Your task to perform on an android device: open wifi settings Image 0: 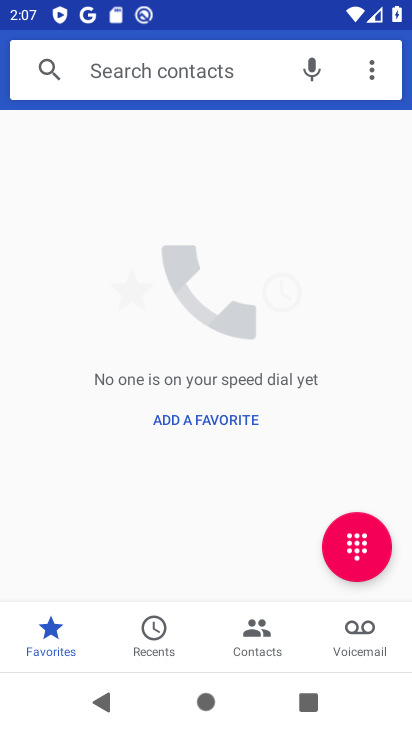
Step 0: drag from (239, 583) to (138, 170)
Your task to perform on an android device: open wifi settings Image 1: 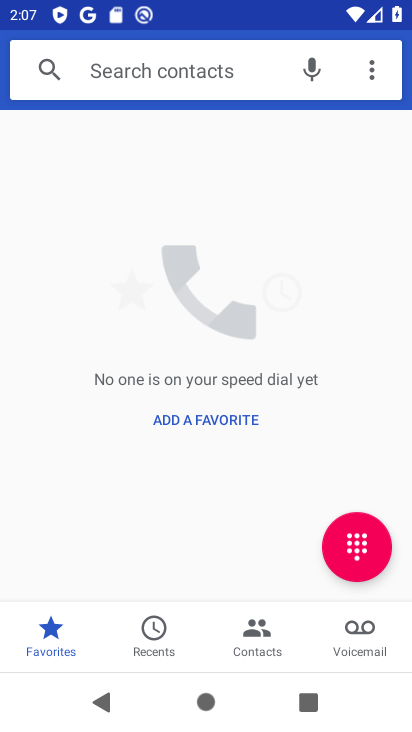
Step 1: press back button
Your task to perform on an android device: open wifi settings Image 2: 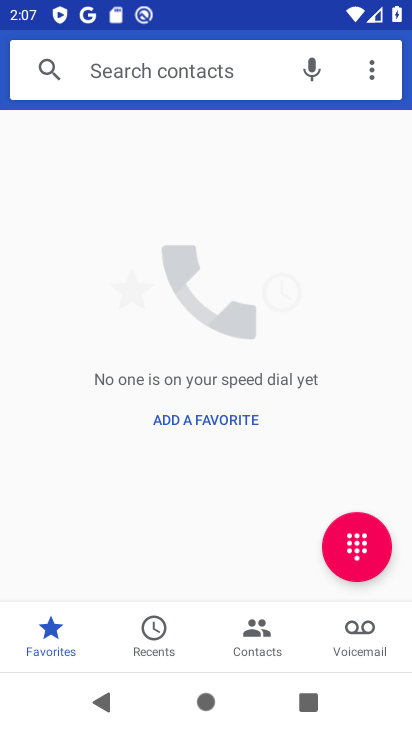
Step 2: press back button
Your task to perform on an android device: open wifi settings Image 3: 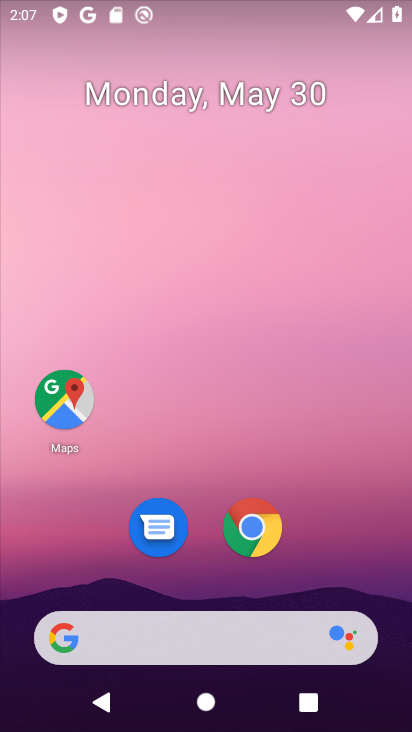
Step 3: drag from (287, 664) to (259, 70)
Your task to perform on an android device: open wifi settings Image 4: 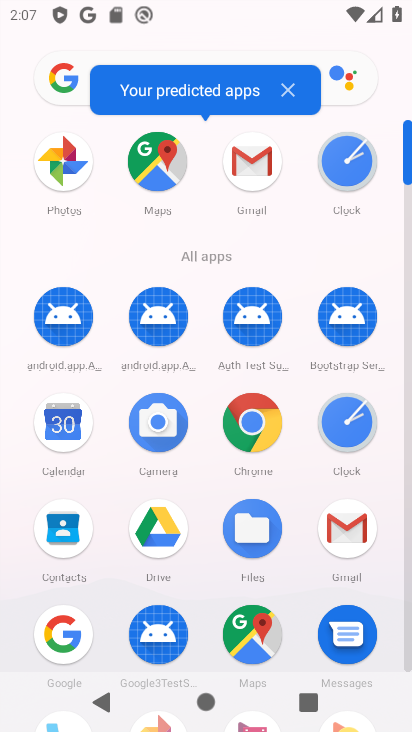
Step 4: drag from (331, 534) to (282, 60)
Your task to perform on an android device: open wifi settings Image 5: 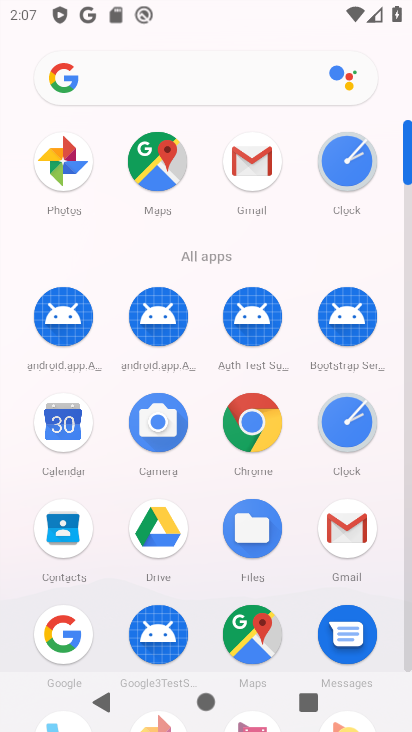
Step 5: drag from (287, 442) to (248, 144)
Your task to perform on an android device: open wifi settings Image 6: 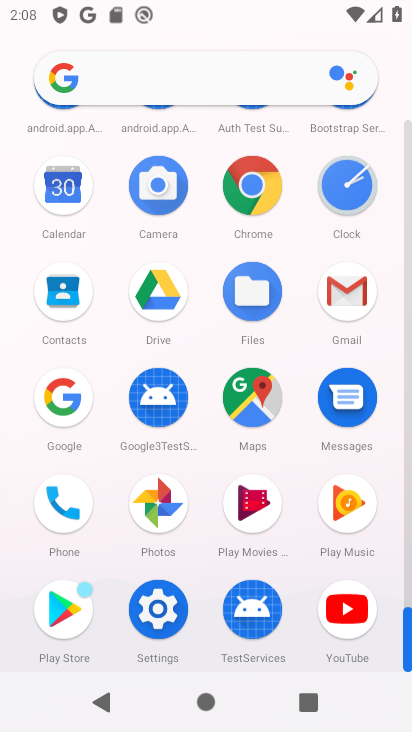
Step 6: drag from (266, 464) to (244, 166)
Your task to perform on an android device: open wifi settings Image 7: 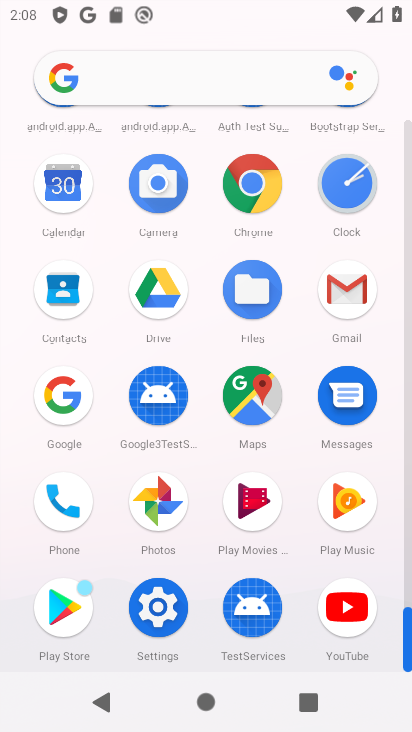
Step 7: drag from (253, 435) to (241, 212)
Your task to perform on an android device: open wifi settings Image 8: 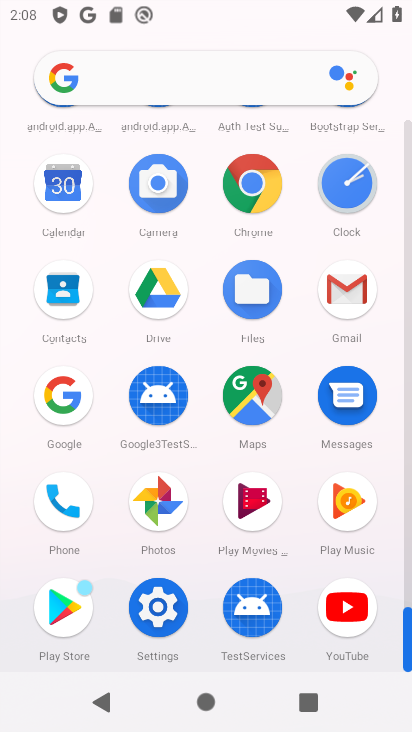
Step 8: click (172, 611)
Your task to perform on an android device: open wifi settings Image 9: 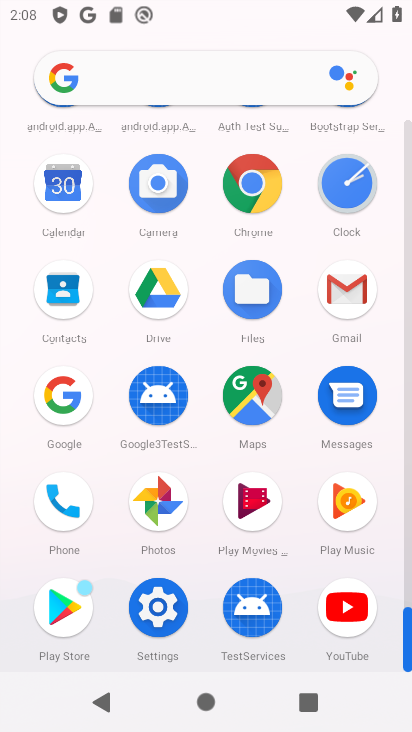
Step 9: click (143, 597)
Your task to perform on an android device: open wifi settings Image 10: 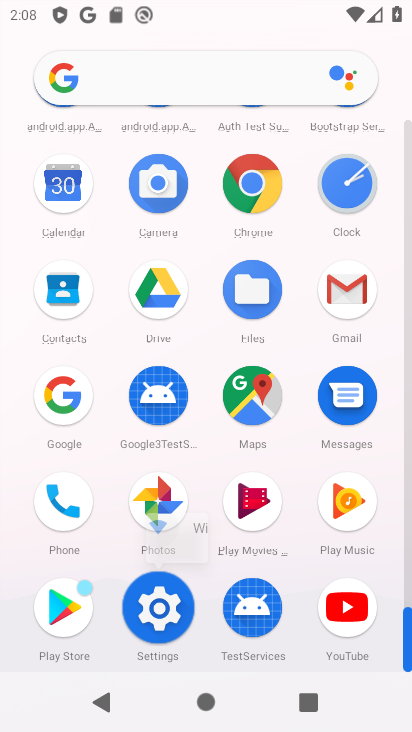
Step 10: click (146, 636)
Your task to perform on an android device: open wifi settings Image 11: 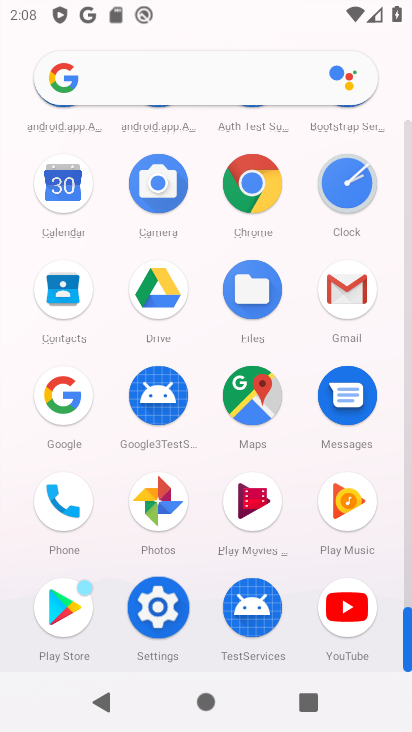
Step 11: click (164, 628)
Your task to perform on an android device: open wifi settings Image 12: 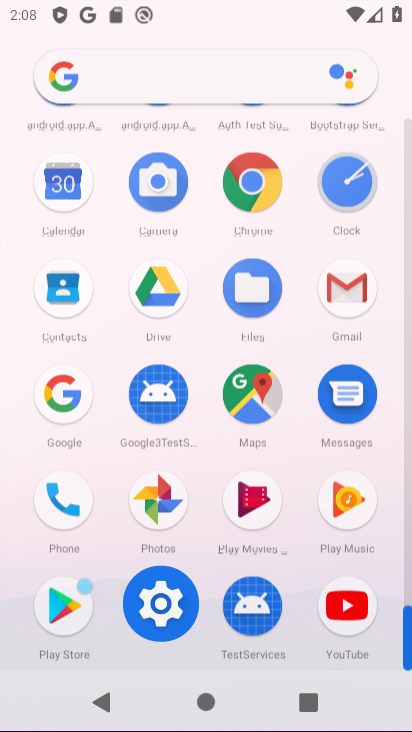
Step 12: click (165, 627)
Your task to perform on an android device: open wifi settings Image 13: 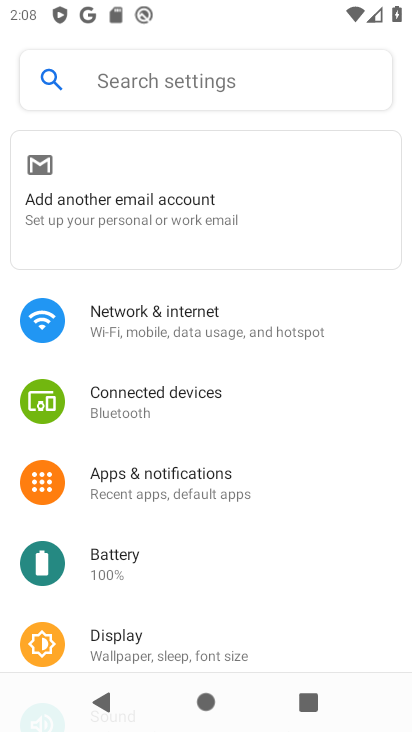
Step 13: click (118, 323)
Your task to perform on an android device: open wifi settings Image 14: 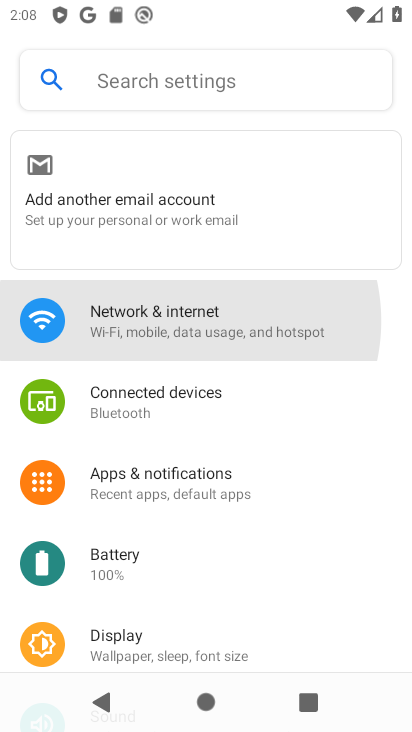
Step 14: click (119, 324)
Your task to perform on an android device: open wifi settings Image 15: 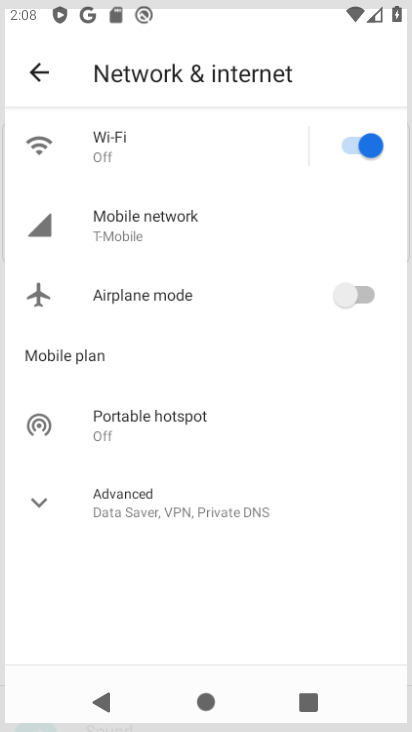
Step 15: click (118, 324)
Your task to perform on an android device: open wifi settings Image 16: 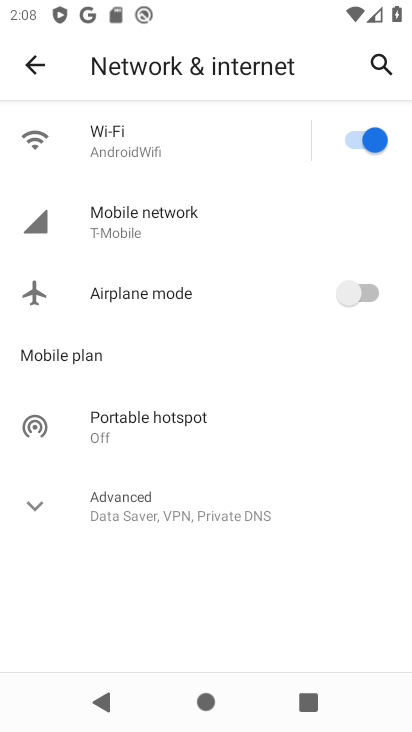
Step 16: click (118, 324)
Your task to perform on an android device: open wifi settings Image 17: 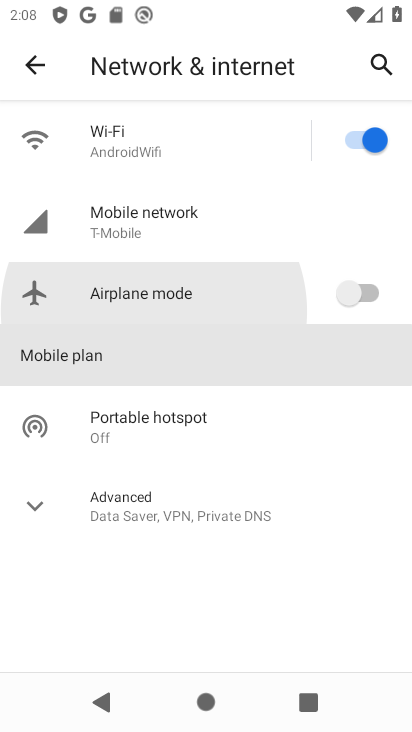
Step 17: click (117, 325)
Your task to perform on an android device: open wifi settings Image 18: 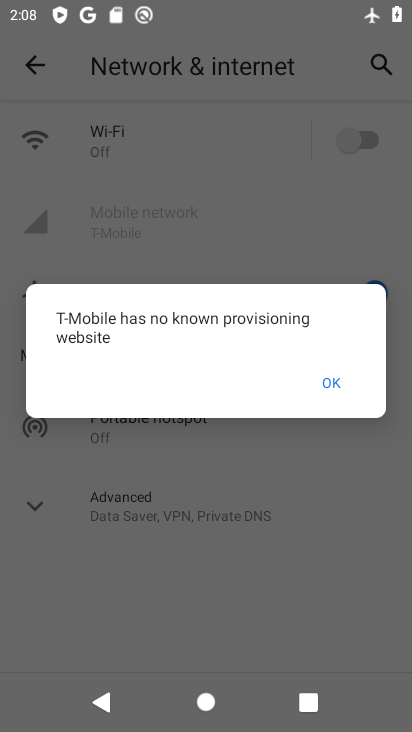
Step 18: click (336, 378)
Your task to perform on an android device: open wifi settings Image 19: 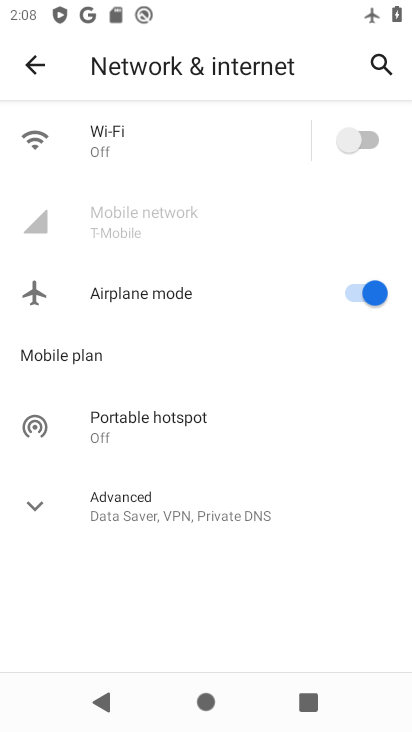
Step 19: click (357, 144)
Your task to perform on an android device: open wifi settings Image 20: 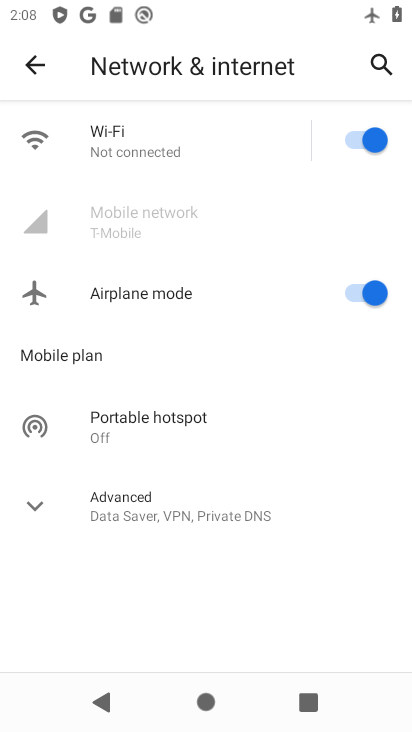
Step 20: click (377, 296)
Your task to perform on an android device: open wifi settings Image 21: 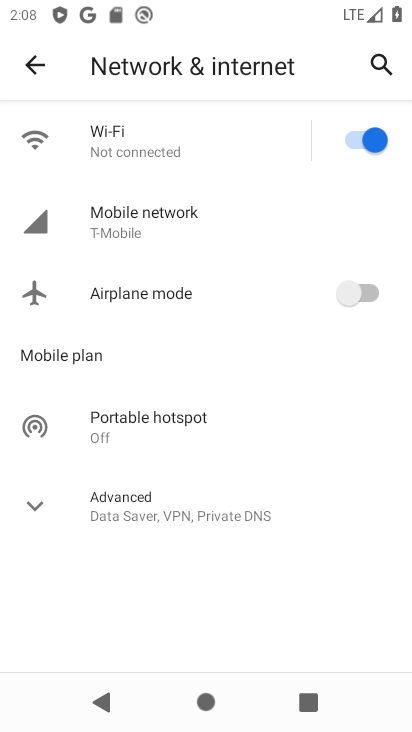
Step 21: task complete